Your task to perform on an android device: turn pop-ups off in chrome Image 0: 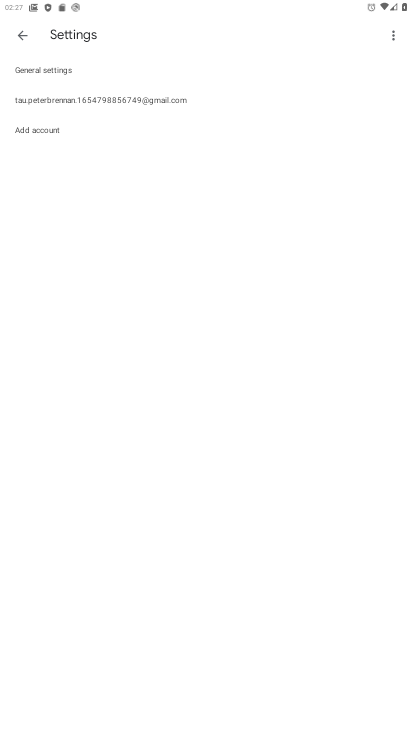
Step 0: press home button
Your task to perform on an android device: turn pop-ups off in chrome Image 1: 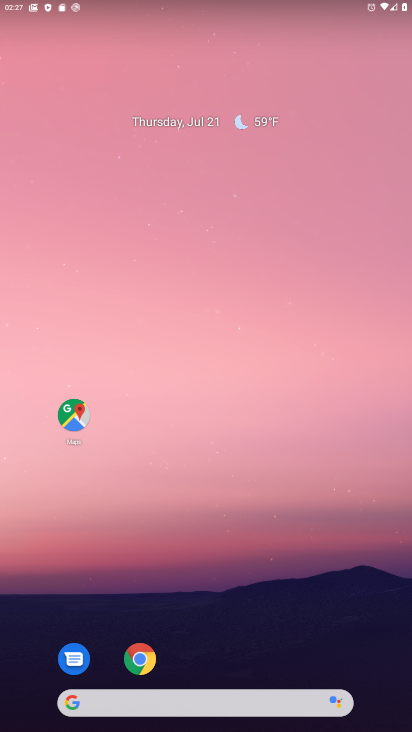
Step 1: drag from (244, 547) to (210, 87)
Your task to perform on an android device: turn pop-ups off in chrome Image 2: 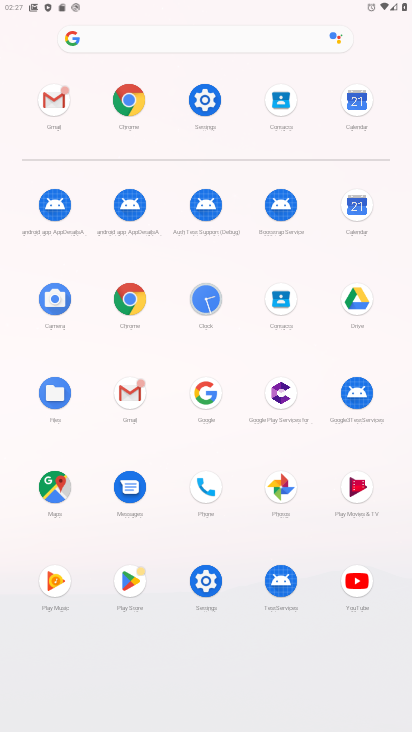
Step 2: click (122, 99)
Your task to perform on an android device: turn pop-ups off in chrome Image 3: 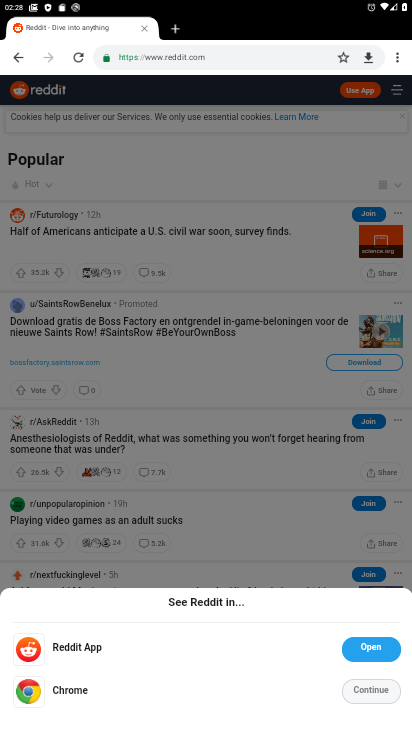
Step 3: drag from (393, 52) to (276, 387)
Your task to perform on an android device: turn pop-ups off in chrome Image 4: 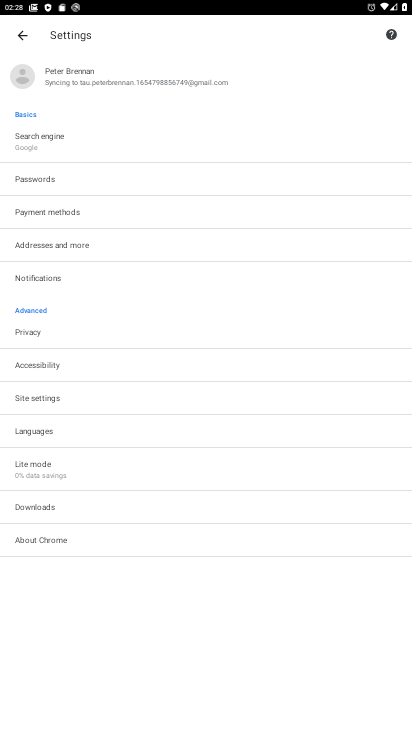
Step 4: click (59, 395)
Your task to perform on an android device: turn pop-ups off in chrome Image 5: 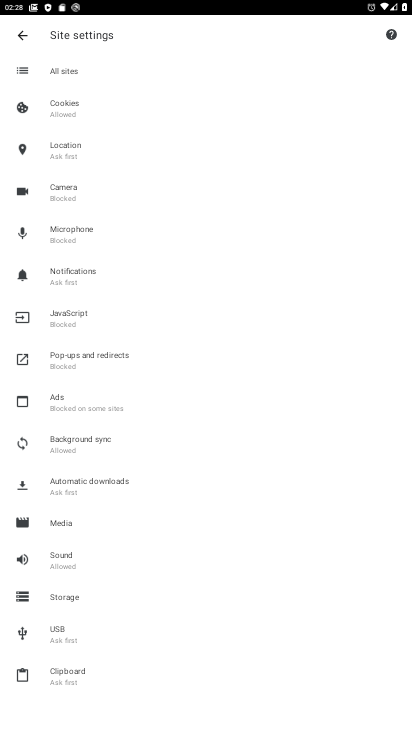
Step 5: click (109, 357)
Your task to perform on an android device: turn pop-ups off in chrome Image 6: 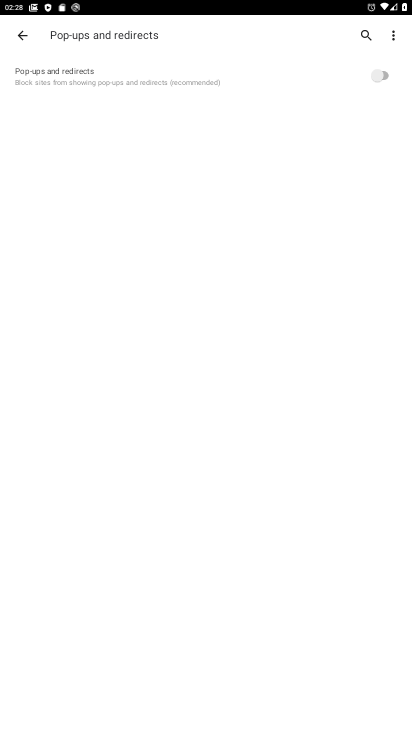
Step 6: task complete